Your task to perform on an android device: Open maps Image 0: 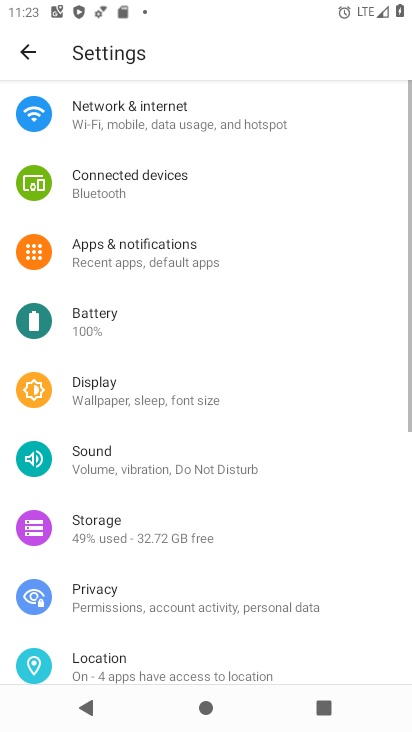
Step 0: press home button
Your task to perform on an android device: Open maps Image 1: 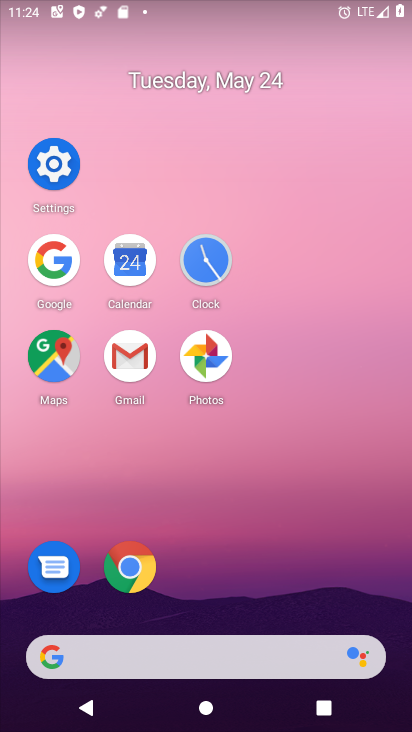
Step 1: click (67, 369)
Your task to perform on an android device: Open maps Image 2: 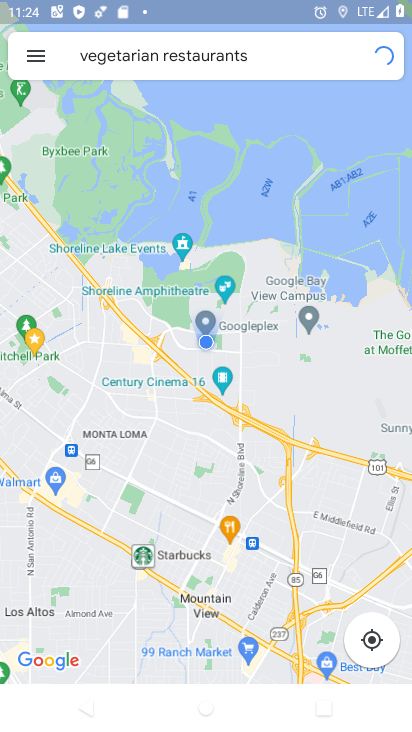
Step 2: task complete